Your task to perform on an android device: toggle notifications settings in the gmail app Image 0: 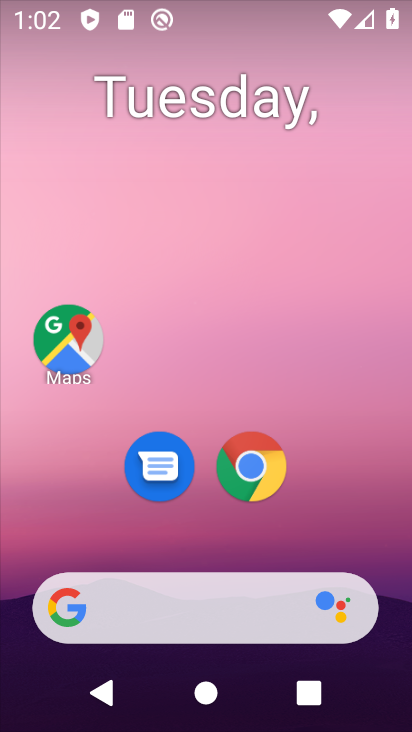
Step 0: drag from (212, 539) to (221, 77)
Your task to perform on an android device: toggle notifications settings in the gmail app Image 1: 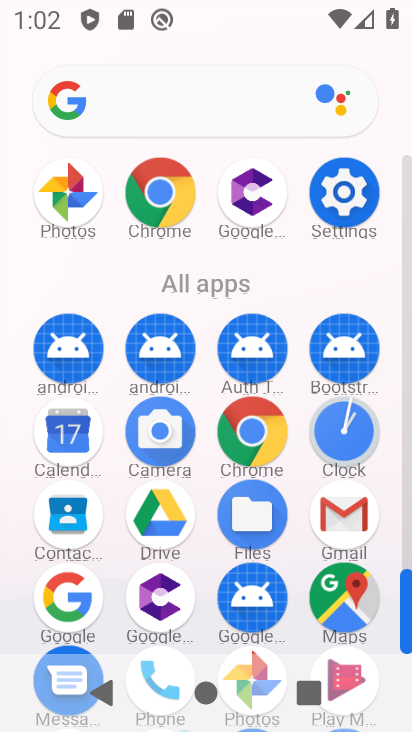
Step 1: click (331, 522)
Your task to perform on an android device: toggle notifications settings in the gmail app Image 2: 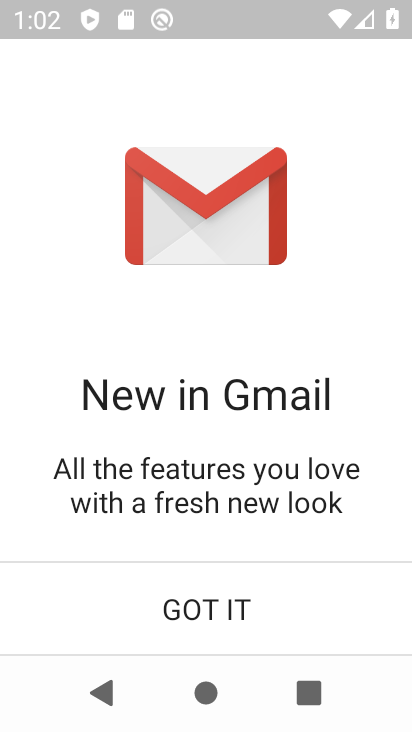
Step 2: click (208, 598)
Your task to perform on an android device: toggle notifications settings in the gmail app Image 3: 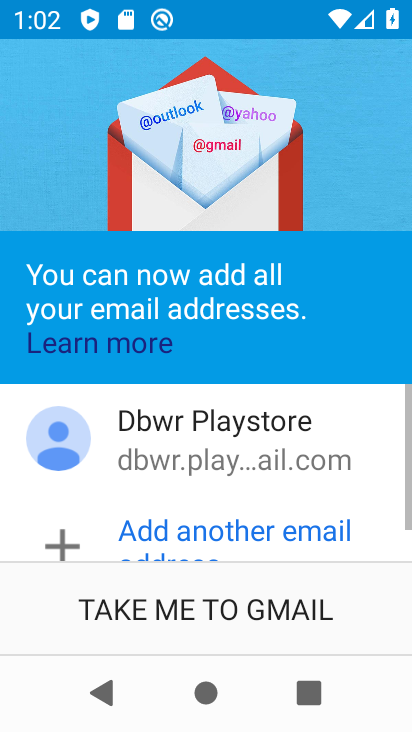
Step 3: click (200, 587)
Your task to perform on an android device: toggle notifications settings in the gmail app Image 4: 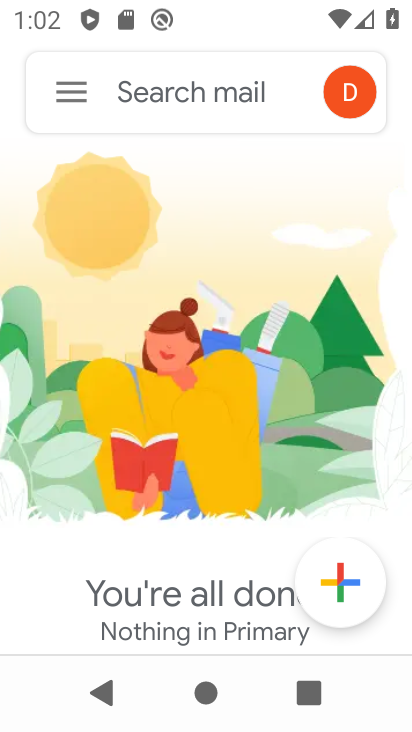
Step 4: click (74, 87)
Your task to perform on an android device: toggle notifications settings in the gmail app Image 5: 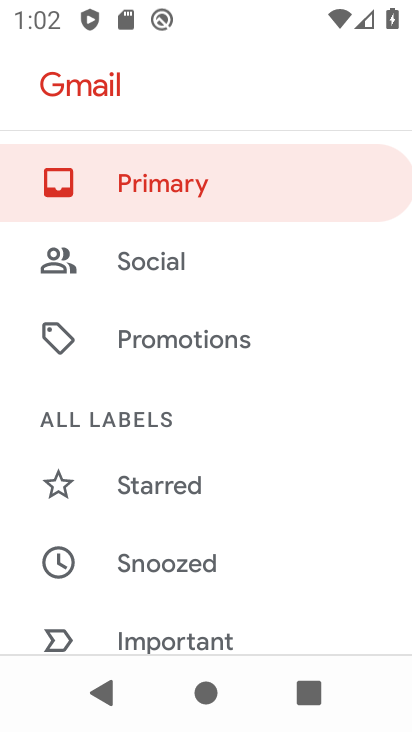
Step 5: drag from (217, 614) to (220, 258)
Your task to perform on an android device: toggle notifications settings in the gmail app Image 6: 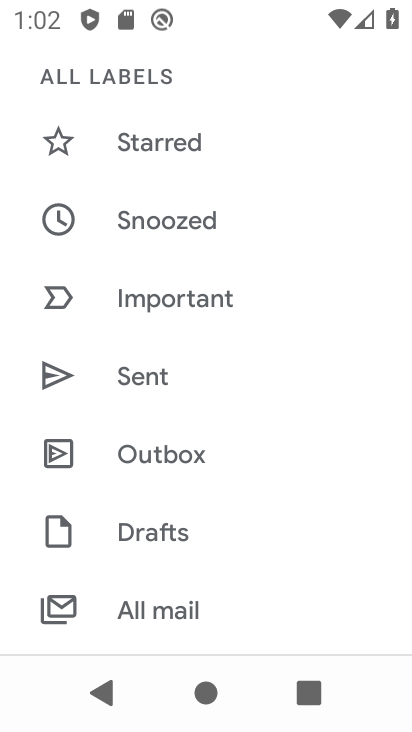
Step 6: drag from (183, 561) to (215, 261)
Your task to perform on an android device: toggle notifications settings in the gmail app Image 7: 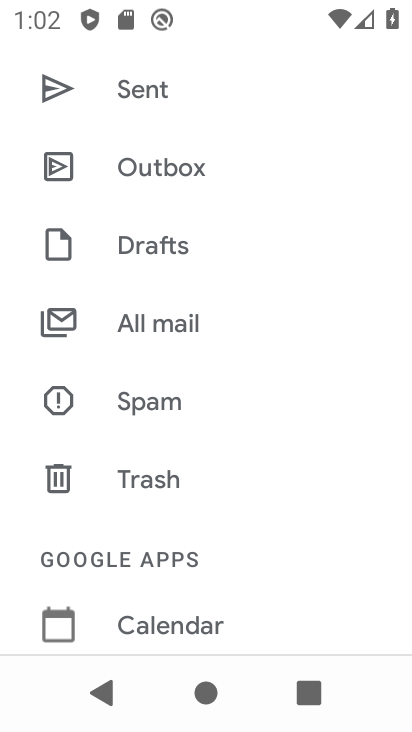
Step 7: drag from (194, 576) to (248, 213)
Your task to perform on an android device: toggle notifications settings in the gmail app Image 8: 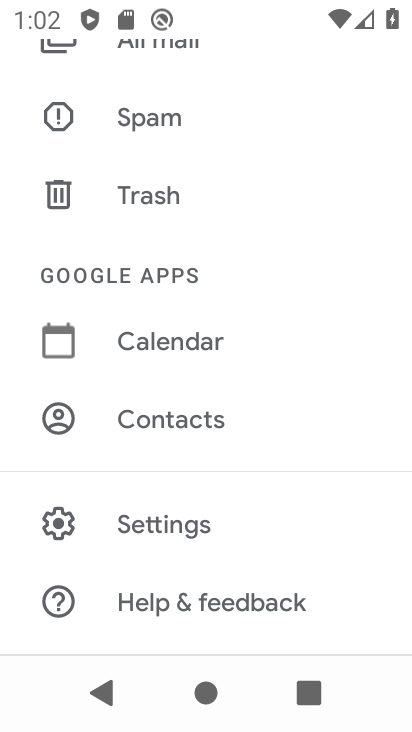
Step 8: click (163, 520)
Your task to perform on an android device: toggle notifications settings in the gmail app Image 9: 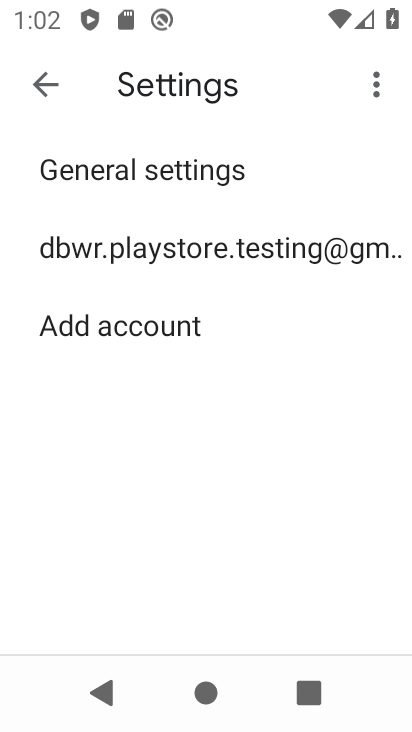
Step 9: click (218, 241)
Your task to perform on an android device: toggle notifications settings in the gmail app Image 10: 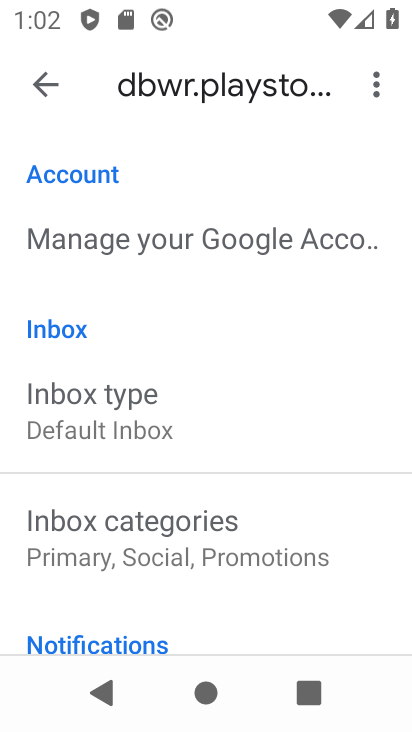
Step 10: drag from (224, 586) to (247, 323)
Your task to perform on an android device: toggle notifications settings in the gmail app Image 11: 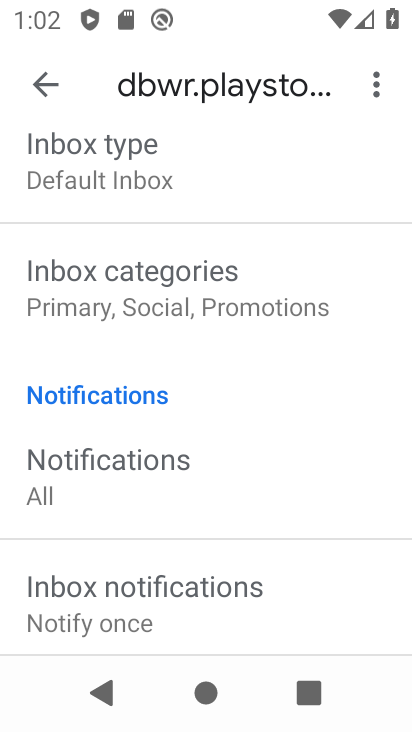
Step 11: drag from (207, 563) to (217, 309)
Your task to perform on an android device: toggle notifications settings in the gmail app Image 12: 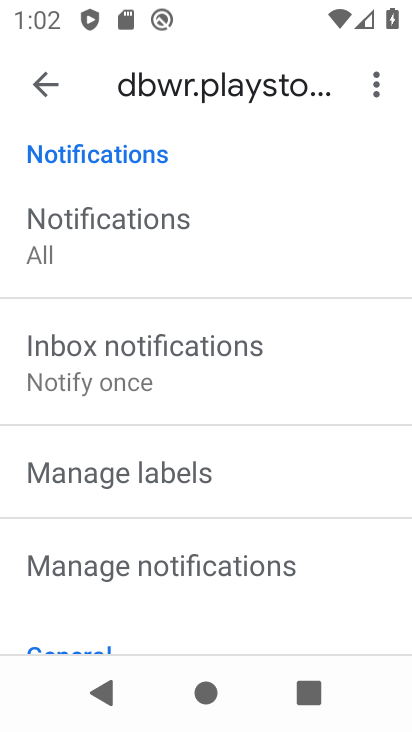
Step 12: click (142, 568)
Your task to perform on an android device: toggle notifications settings in the gmail app Image 13: 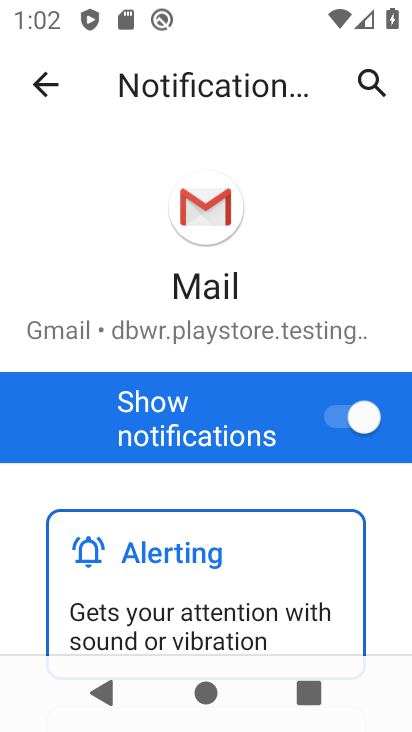
Step 13: click (360, 424)
Your task to perform on an android device: toggle notifications settings in the gmail app Image 14: 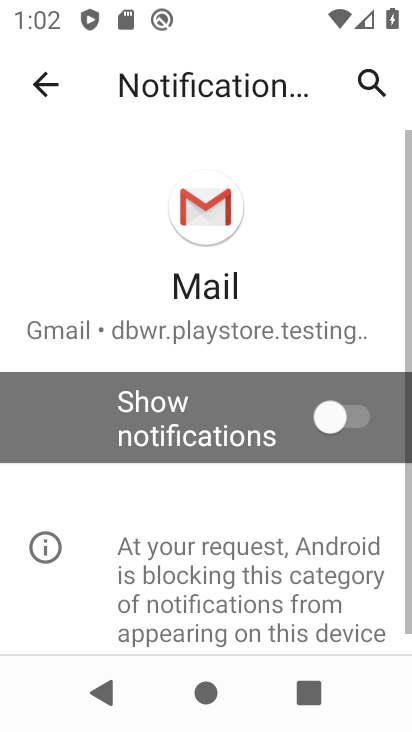
Step 14: task complete